Your task to perform on an android device: Open the phone app and click the voicemail tab. Image 0: 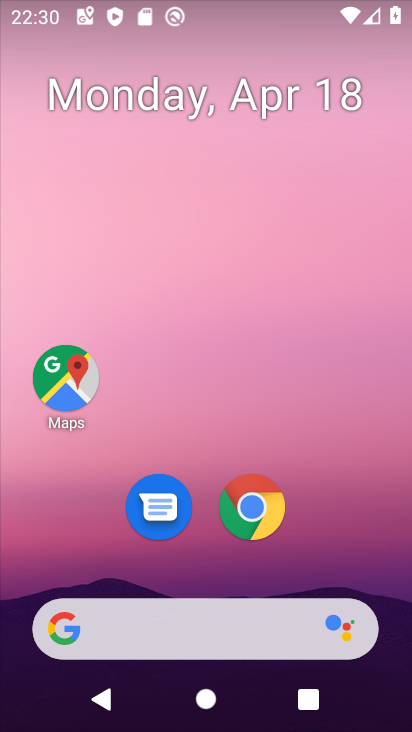
Step 0: drag from (355, 504) to (327, 119)
Your task to perform on an android device: Open the phone app and click the voicemail tab. Image 1: 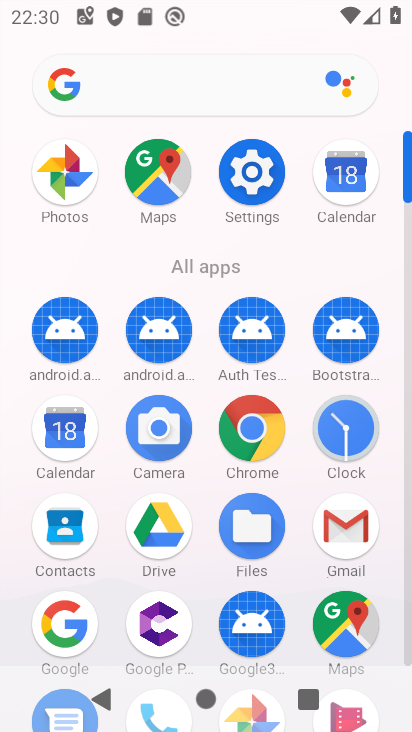
Step 1: drag from (208, 543) to (181, 229)
Your task to perform on an android device: Open the phone app and click the voicemail tab. Image 2: 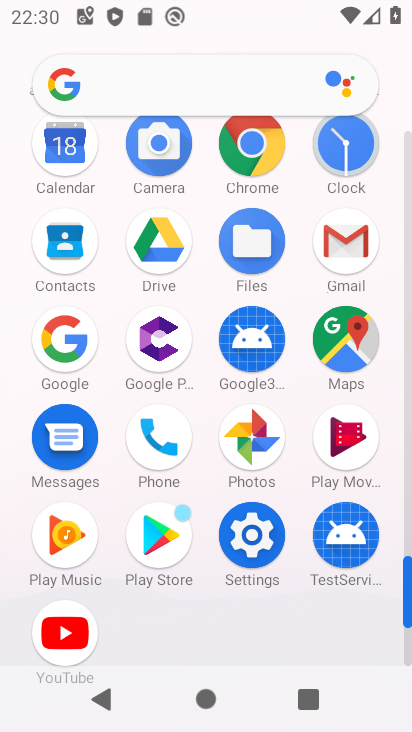
Step 2: click (167, 446)
Your task to perform on an android device: Open the phone app and click the voicemail tab. Image 3: 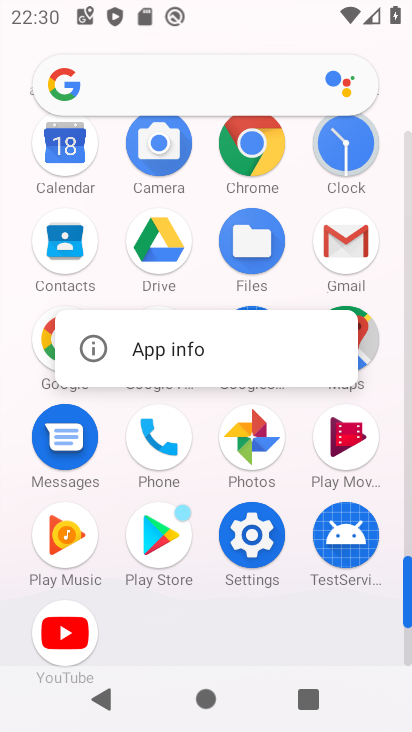
Step 3: click (167, 448)
Your task to perform on an android device: Open the phone app and click the voicemail tab. Image 4: 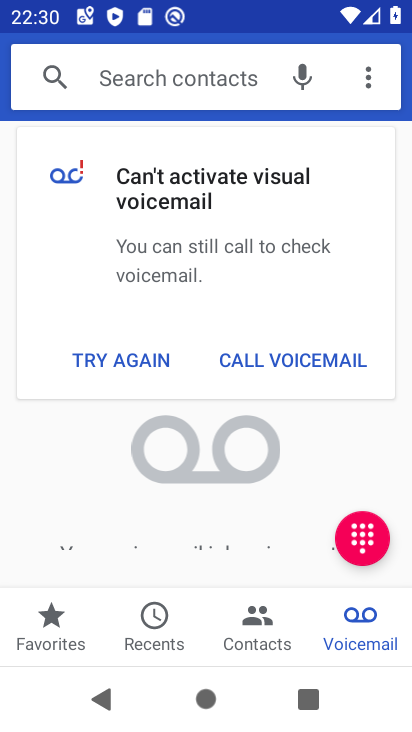
Step 4: click (347, 618)
Your task to perform on an android device: Open the phone app and click the voicemail tab. Image 5: 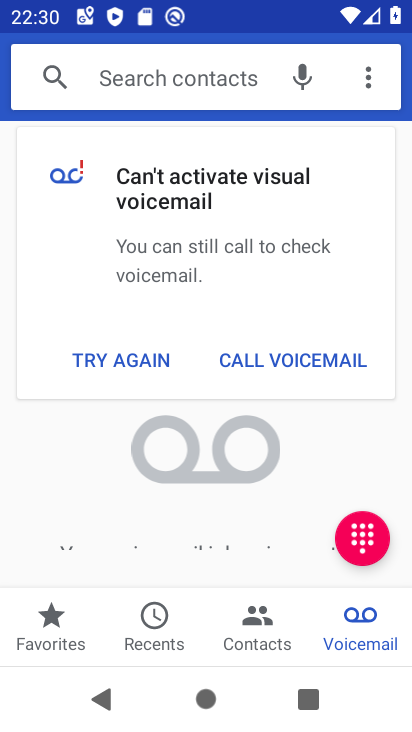
Step 5: task complete